Your task to perform on an android device: empty trash in the gmail app Image 0: 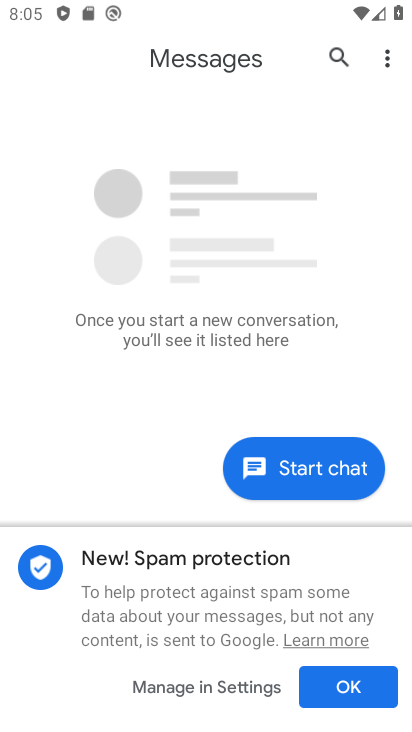
Step 0: press home button
Your task to perform on an android device: empty trash in the gmail app Image 1: 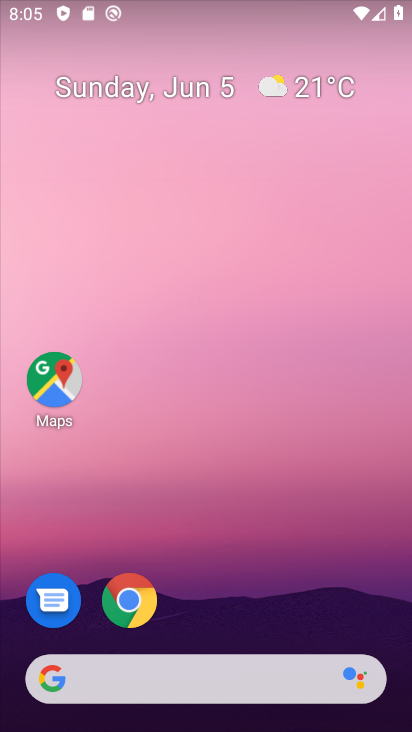
Step 1: drag from (276, 602) to (373, 0)
Your task to perform on an android device: empty trash in the gmail app Image 2: 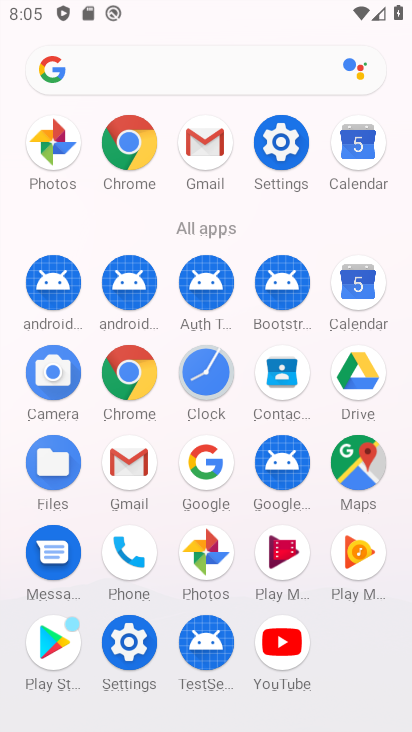
Step 2: click (122, 462)
Your task to perform on an android device: empty trash in the gmail app Image 3: 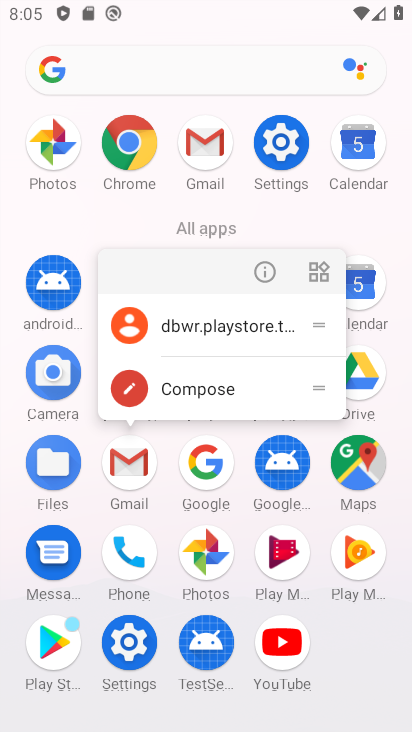
Step 3: click (122, 462)
Your task to perform on an android device: empty trash in the gmail app Image 4: 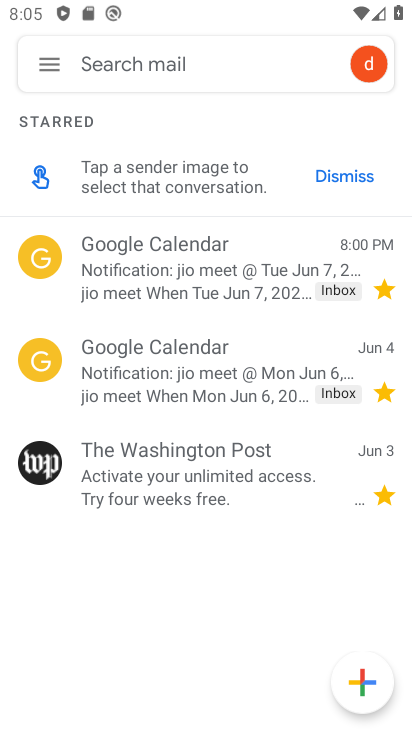
Step 4: click (42, 65)
Your task to perform on an android device: empty trash in the gmail app Image 5: 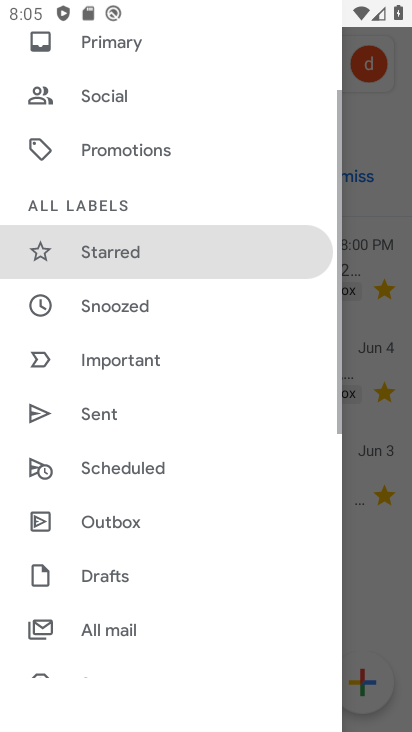
Step 5: drag from (137, 625) to (245, 250)
Your task to perform on an android device: empty trash in the gmail app Image 6: 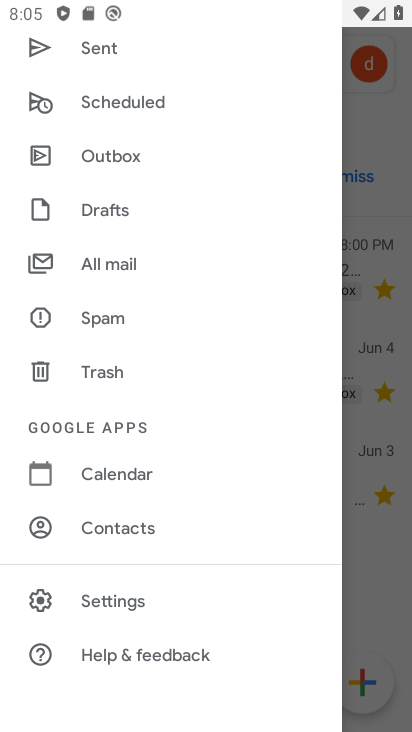
Step 6: click (132, 364)
Your task to perform on an android device: empty trash in the gmail app Image 7: 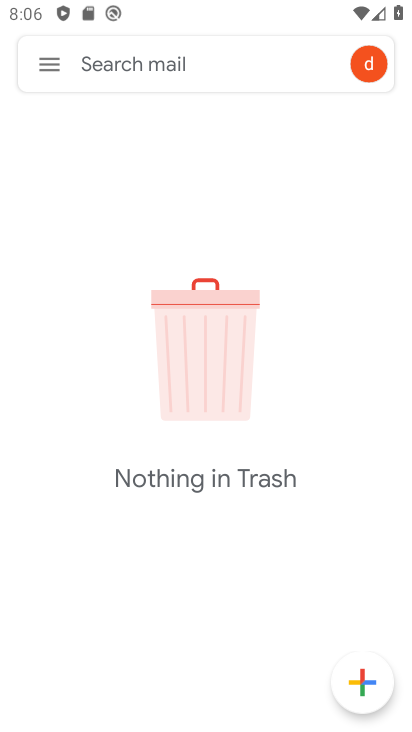
Step 7: task complete